Your task to perform on an android device: Open Yahoo.com Image 0: 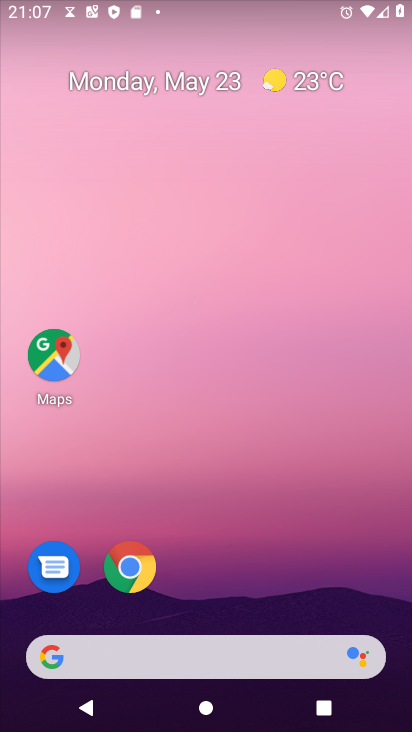
Step 0: click (148, 574)
Your task to perform on an android device: Open Yahoo.com Image 1: 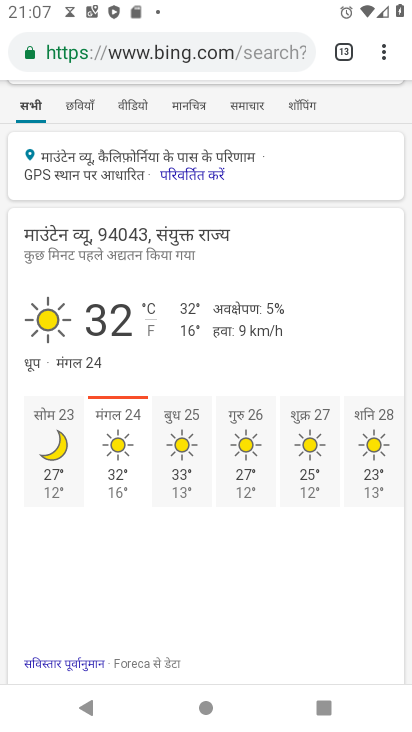
Step 1: click (388, 41)
Your task to perform on an android device: Open Yahoo.com Image 2: 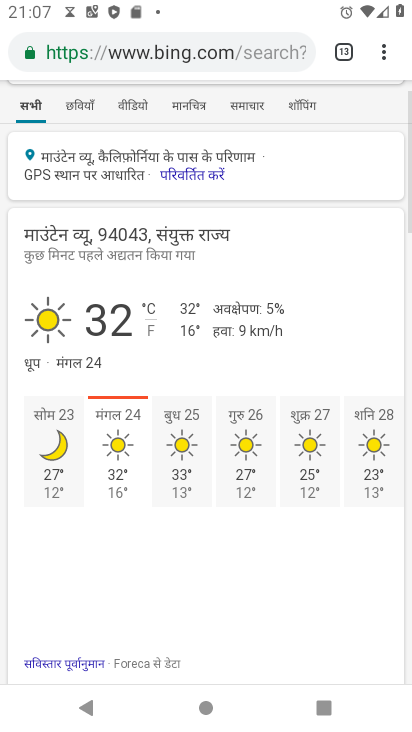
Step 2: click (388, 41)
Your task to perform on an android device: Open Yahoo.com Image 3: 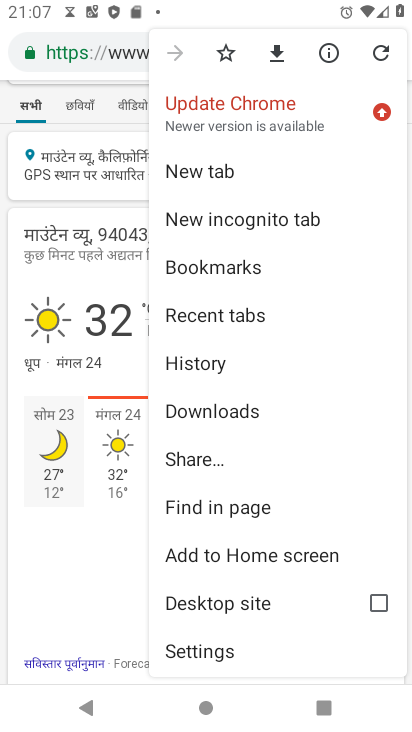
Step 3: click (189, 168)
Your task to perform on an android device: Open Yahoo.com Image 4: 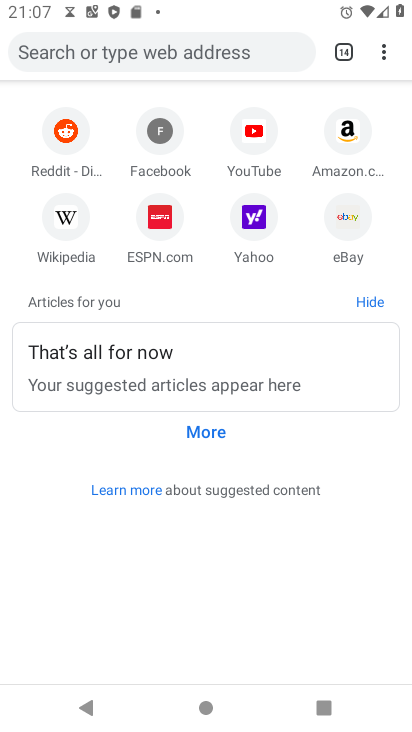
Step 4: click (268, 217)
Your task to perform on an android device: Open Yahoo.com Image 5: 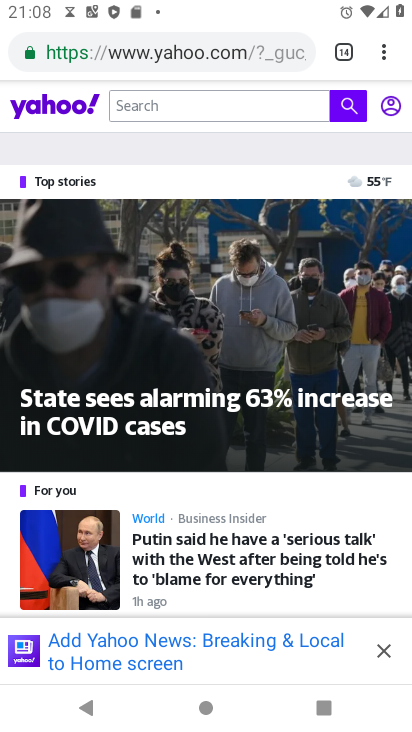
Step 5: task complete